Your task to perform on an android device: check android version Image 0: 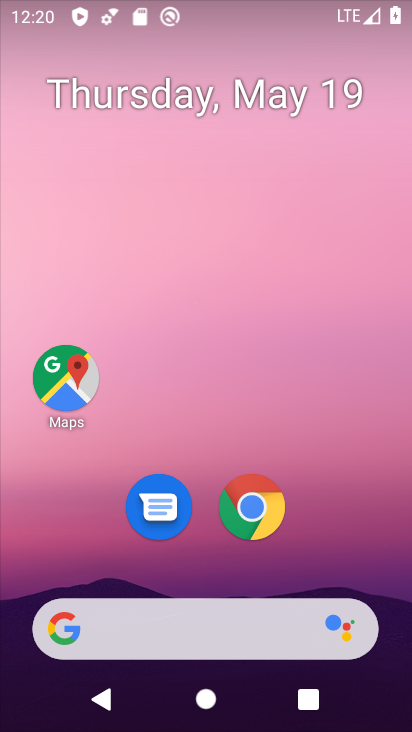
Step 0: drag from (205, 551) to (229, 162)
Your task to perform on an android device: check android version Image 1: 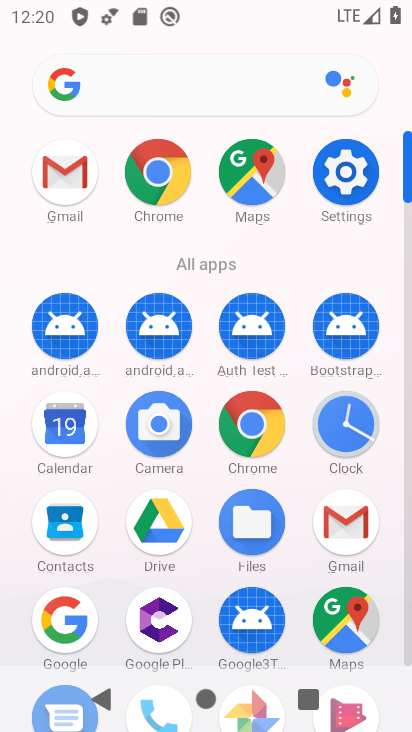
Step 1: click (350, 178)
Your task to perform on an android device: check android version Image 2: 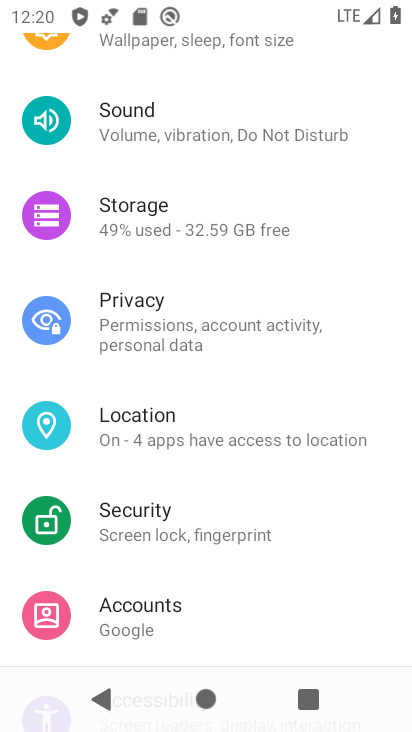
Step 2: drag from (201, 575) to (227, 230)
Your task to perform on an android device: check android version Image 3: 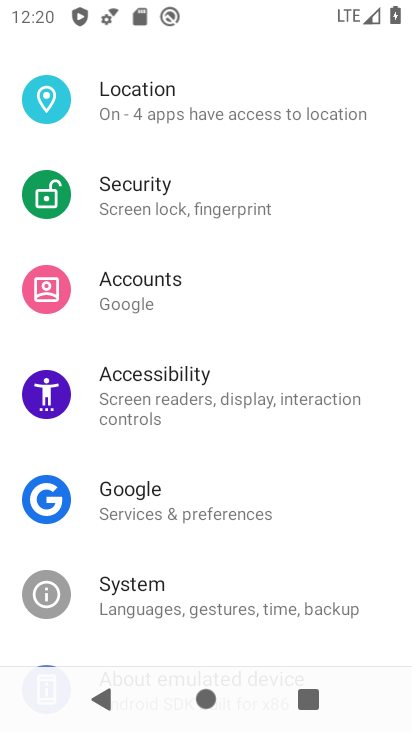
Step 3: drag from (230, 532) to (259, 195)
Your task to perform on an android device: check android version Image 4: 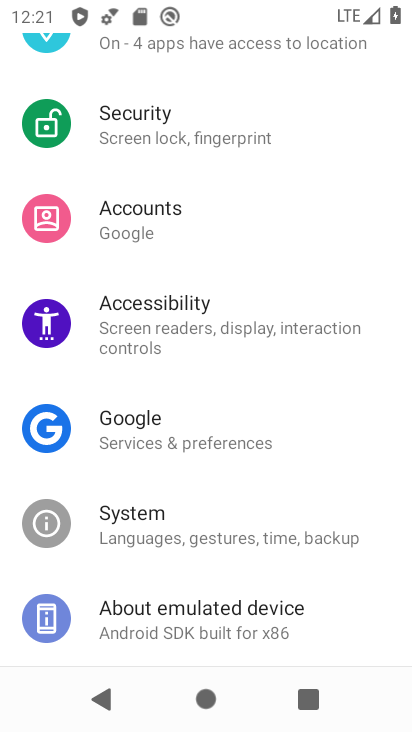
Step 4: click (195, 625)
Your task to perform on an android device: check android version Image 5: 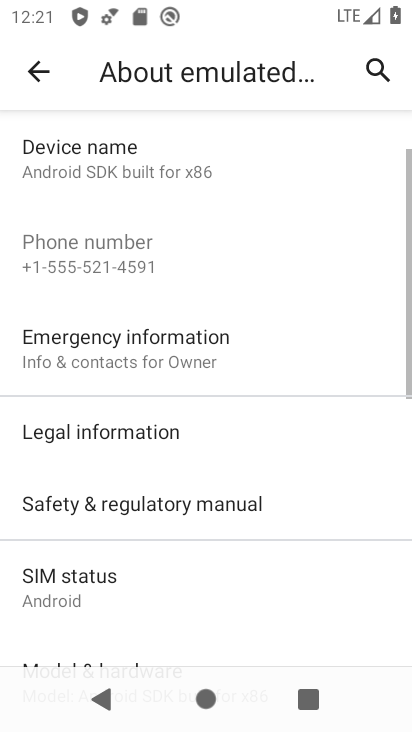
Step 5: drag from (176, 530) to (214, 219)
Your task to perform on an android device: check android version Image 6: 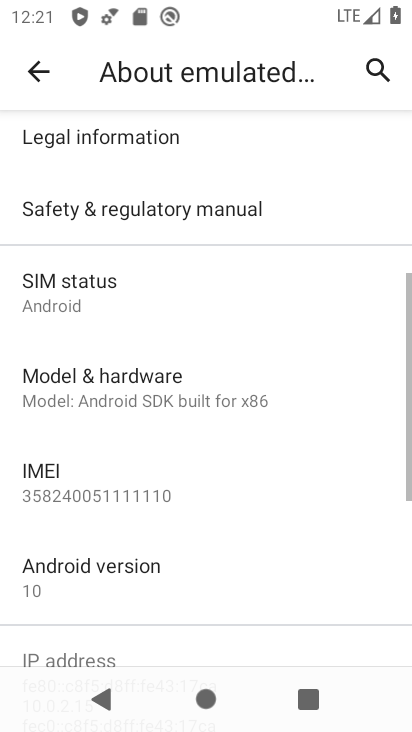
Step 6: click (144, 575)
Your task to perform on an android device: check android version Image 7: 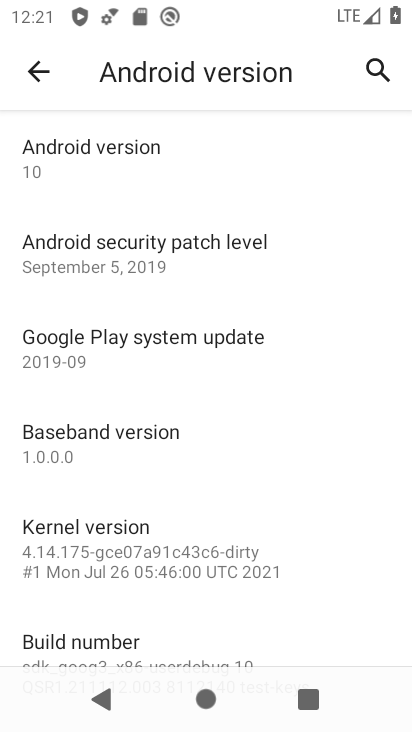
Step 7: task complete